Your task to perform on an android device: Open internet settings Image 0: 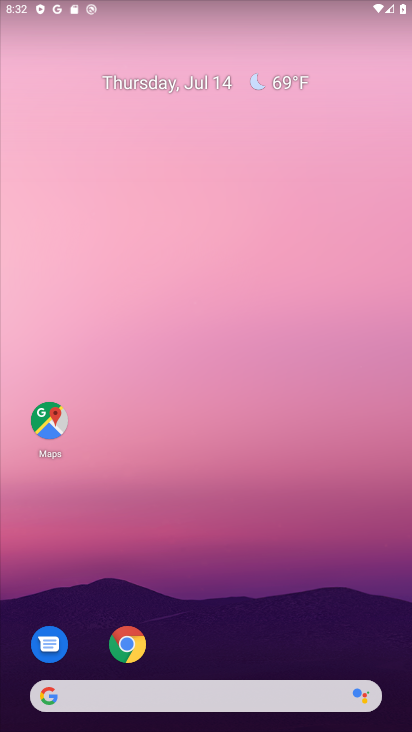
Step 0: drag from (230, 14) to (160, 592)
Your task to perform on an android device: Open internet settings Image 1: 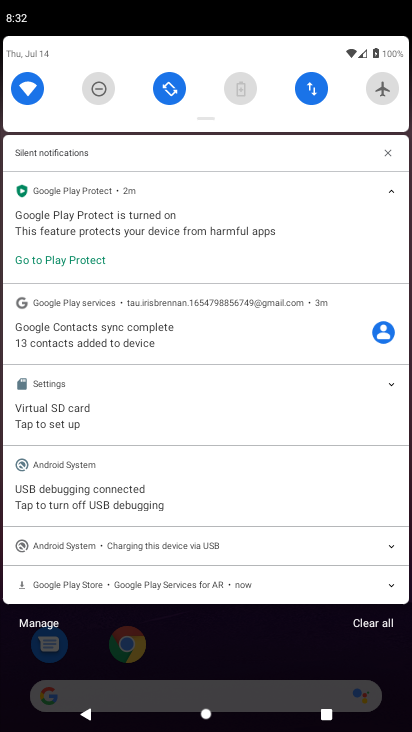
Step 1: click (304, 87)
Your task to perform on an android device: Open internet settings Image 2: 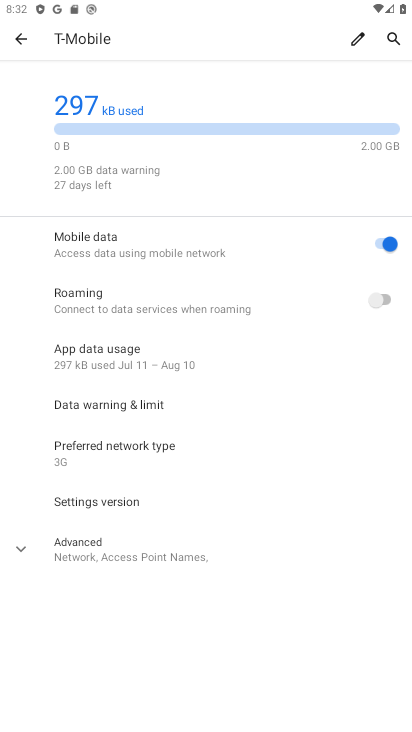
Step 2: task complete